Your task to perform on an android device: snooze an email in the gmail app Image 0: 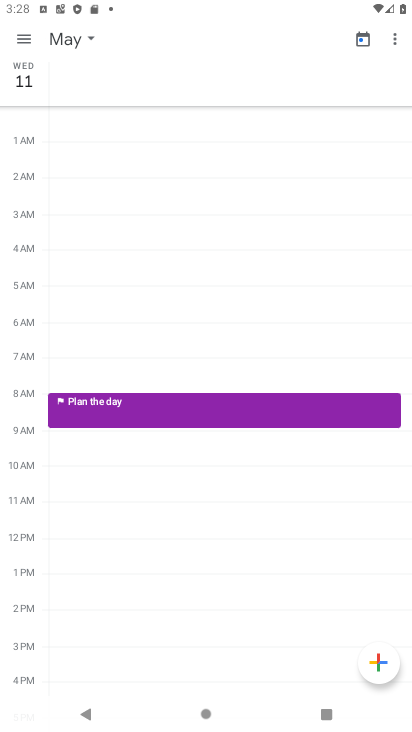
Step 0: press home button
Your task to perform on an android device: snooze an email in the gmail app Image 1: 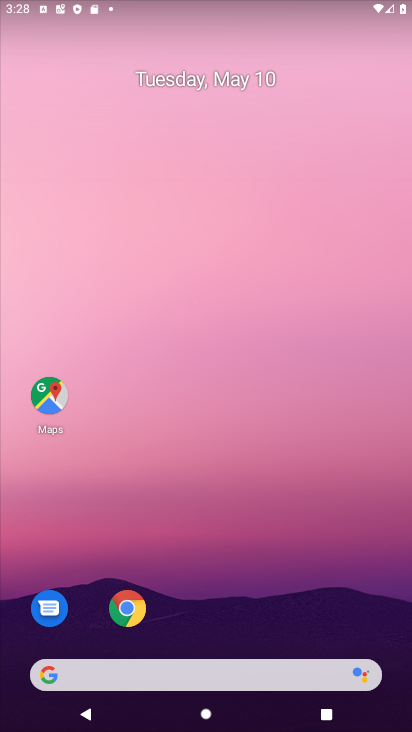
Step 1: drag from (390, 633) to (253, 88)
Your task to perform on an android device: snooze an email in the gmail app Image 2: 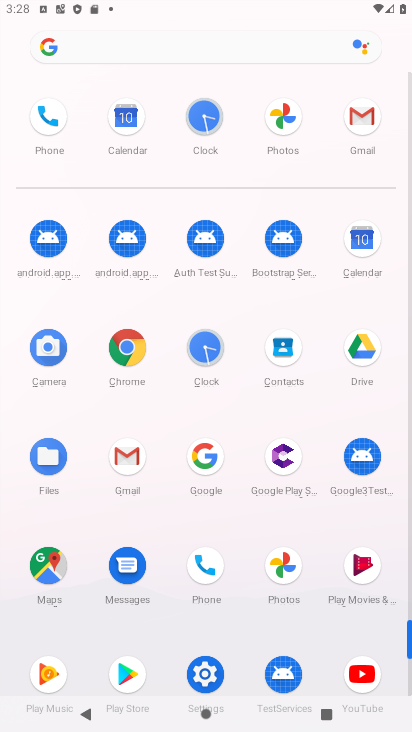
Step 2: click (124, 452)
Your task to perform on an android device: snooze an email in the gmail app Image 3: 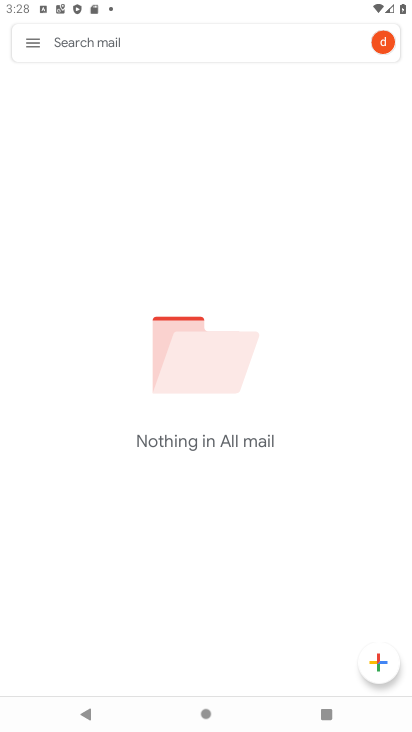
Step 3: click (31, 42)
Your task to perform on an android device: snooze an email in the gmail app Image 4: 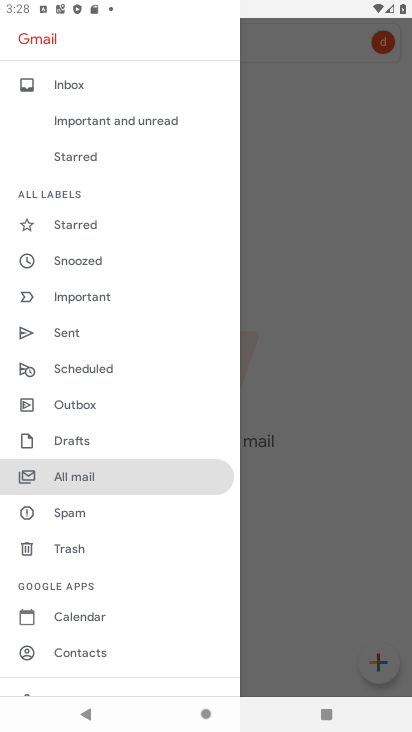
Step 4: click (109, 469)
Your task to perform on an android device: snooze an email in the gmail app Image 5: 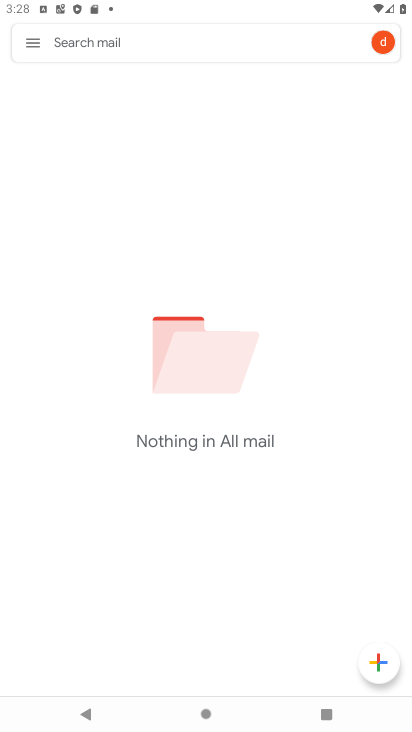
Step 5: task complete